Your task to perform on an android device: turn off notifications settings in the gmail app Image 0: 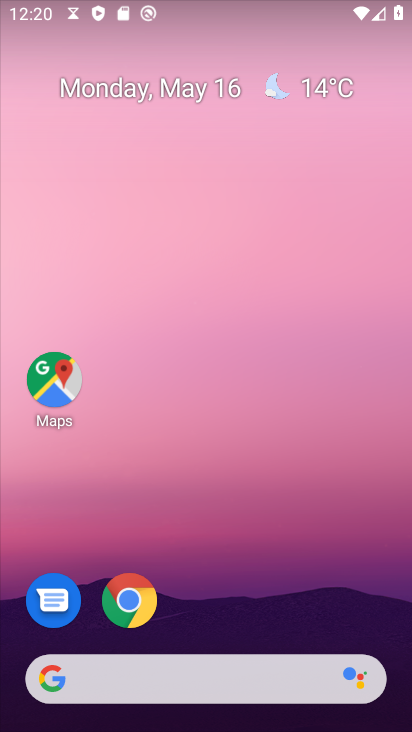
Step 0: drag from (282, 484) to (275, 92)
Your task to perform on an android device: turn off notifications settings in the gmail app Image 1: 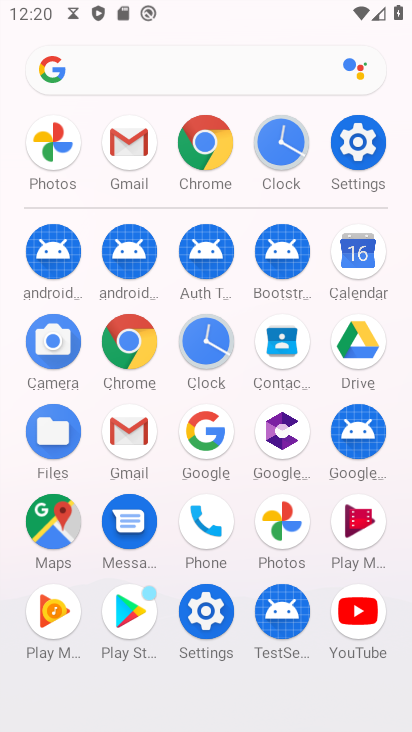
Step 1: drag from (18, 451) to (16, 222)
Your task to perform on an android device: turn off notifications settings in the gmail app Image 2: 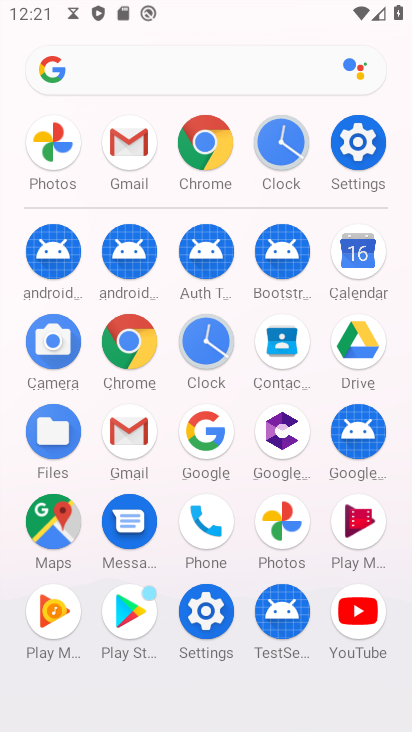
Step 2: click (127, 426)
Your task to perform on an android device: turn off notifications settings in the gmail app Image 3: 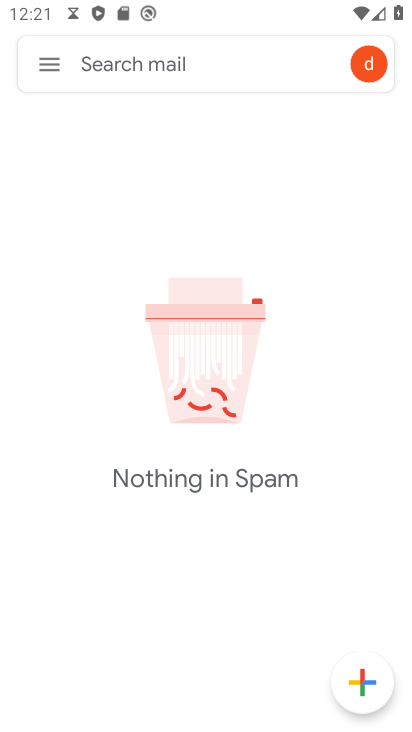
Step 3: click (49, 67)
Your task to perform on an android device: turn off notifications settings in the gmail app Image 4: 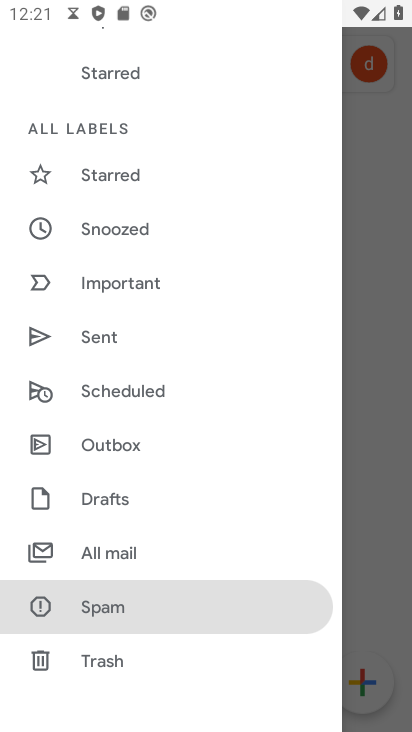
Step 4: drag from (205, 235) to (220, 651)
Your task to perform on an android device: turn off notifications settings in the gmail app Image 5: 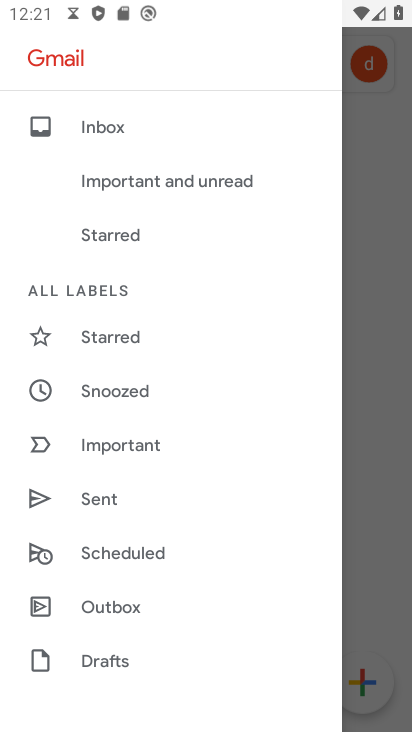
Step 5: drag from (170, 560) to (174, 125)
Your task to perform on an android device: turn off notifications settings in the gmail app Image 6: 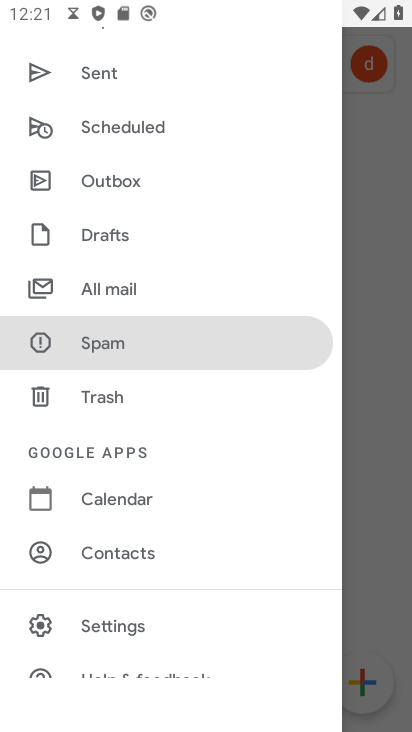
Step 6: drag from (140, 608) to (173, 268)
Your task to perform on an android device: turn off notifications settings in the gmail app Image 7: 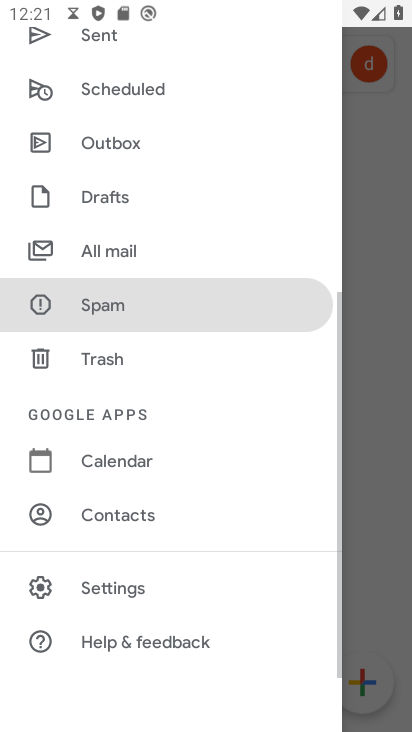
Step 7: click (126, 516)
Your task to perform on an android device: turn off notifications settings in the gmail app Image 8: 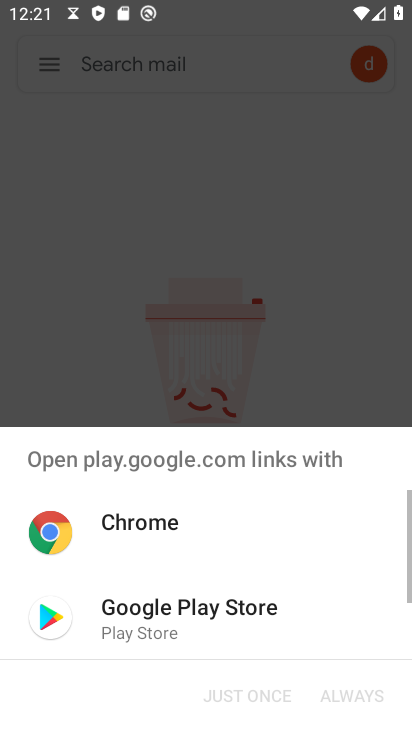
Step 8: click (49, 53)
Your task to perform on an android device: turn off notifications settings in the gmail app Image 9: 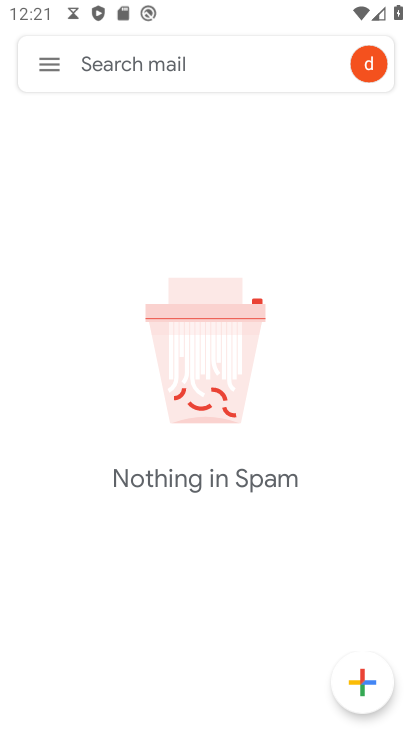
Step 9: click (49, 53)
Your task to perform on an android device: turn off notifications settings in the gmail app Image 10: 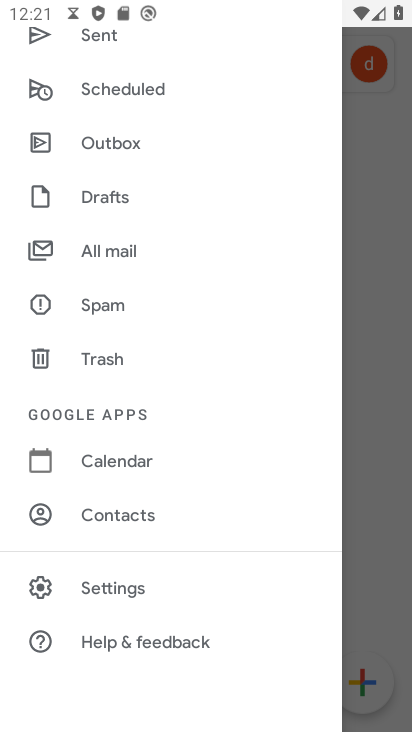
Step 10: click (114, 577)
Your task to perform on an android device: turn off notifications settings in the gmail app Image 11: 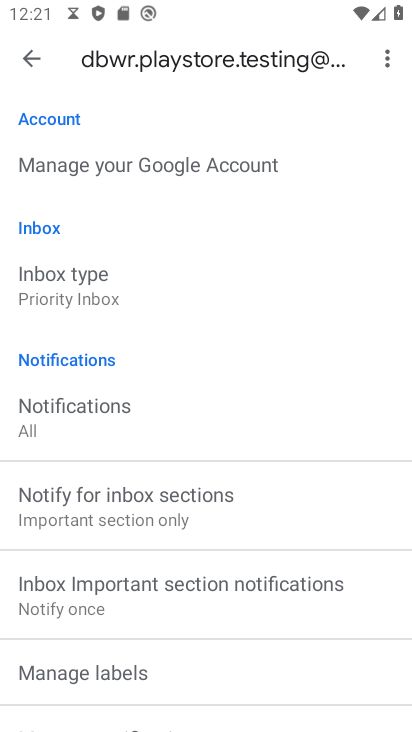
Step 11: click (66, 307)
Your task to perform on an android device: turn off notifications settings in the gmail app Image 12: 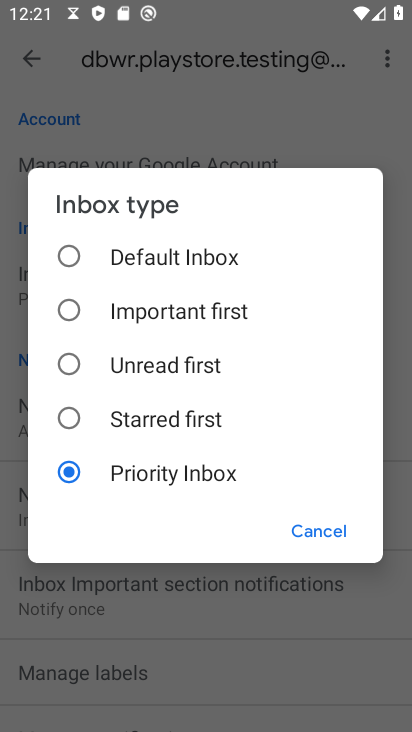
Step 12: click (308, 525)
Your task to perform on an android device: turn off notifications settings in the gmail app Image 13: 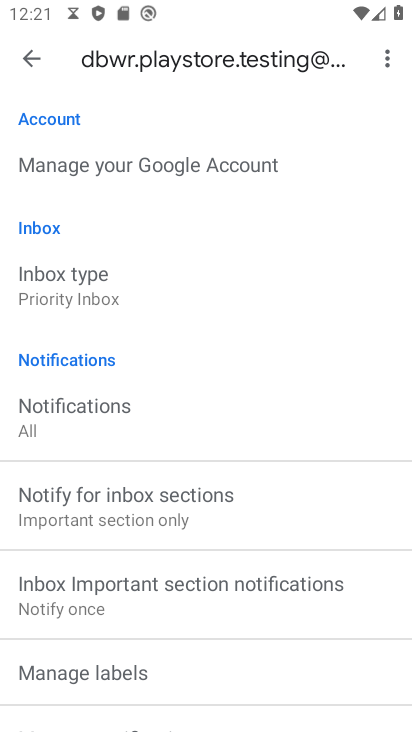
Step 13: drag from (223, 611) to (193, 227)
Your task to perform on an android device: turn off notifications settings in the gmail app Image 14: 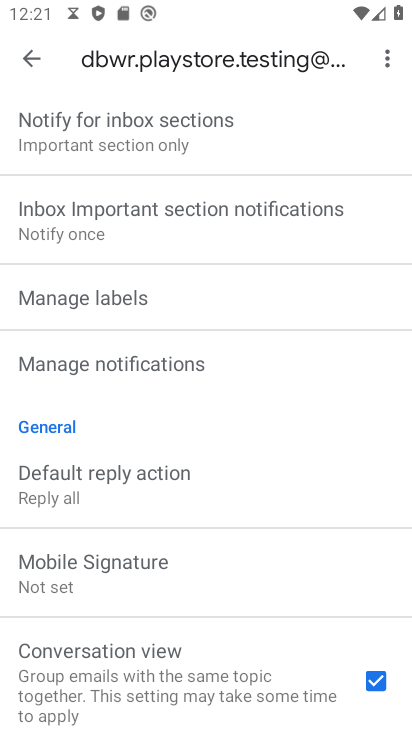
Step 14: click (138, 357)
Your task to perform on an android device: turn off notifications settings in the gmail app Image 15: 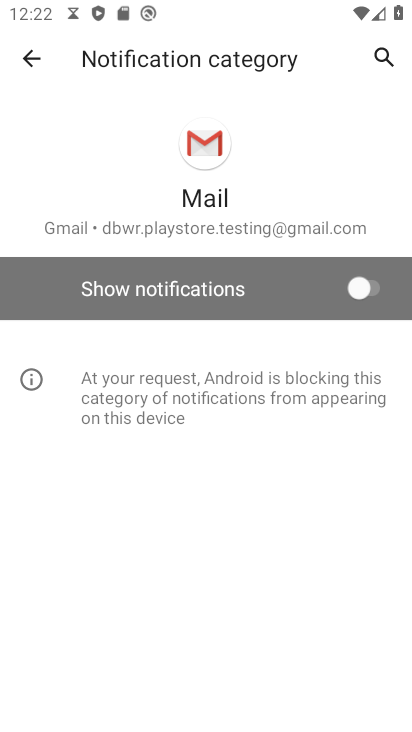
Step 15: task complete